Your task to perform on an android device: Search for a custom made wallet on Etsy Image 0: 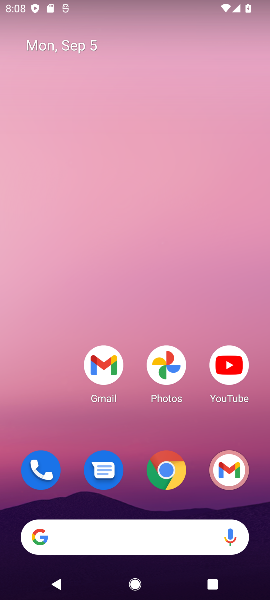
Step 0: click (162, 531)
Your task to perform on an android device: Search for a custom made wallet on Etsy Image 1: 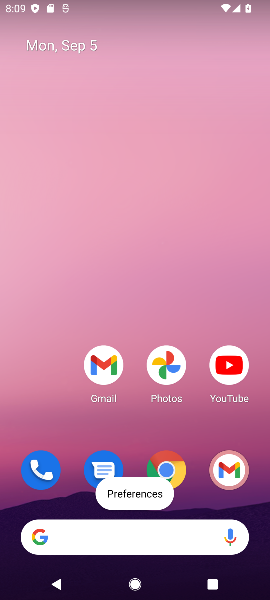
Step 1: click (63, 526)
Your task to perform on an android device: Search for a custom made wallet on Etsy Image 2: 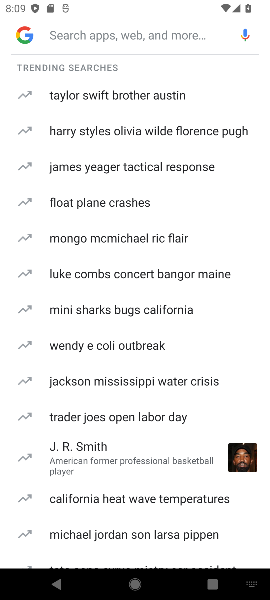
Step 2: type "etsy"
Your task to perform on an android device: Search for a custom made wallet on Etsy Image 3: 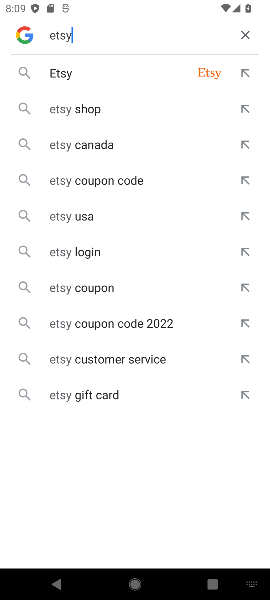
Step 3: click (68, 71)
Your task to perform on an android device: Search for a custom made wallet on Etsy Image 4: 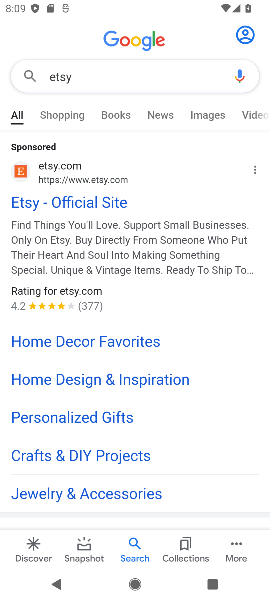
Step 4: click (34, 202)
Your task to perform on an android device: Search for a custom made wallet on Etsy Image 5: 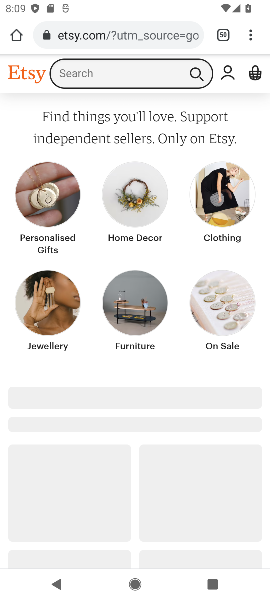
Step 5: click (123, 71)
Your task to perform on an android device: Search for a custom made wallet on Etsy Image 6: 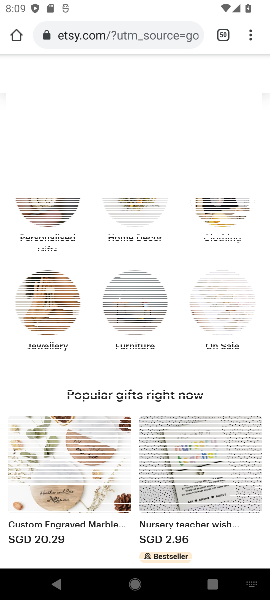
Step 6: type "custom made wallet"
Your task to perform on an android device: Search for a custom made wallet on Etsy Image 7: 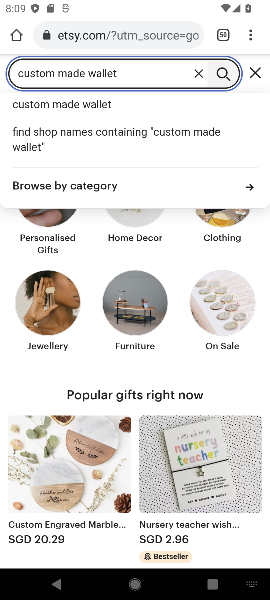
Step 7: click (223, 73)
Your task to perform on an android device: Search for a custom made wallet on Etsy Image 8: 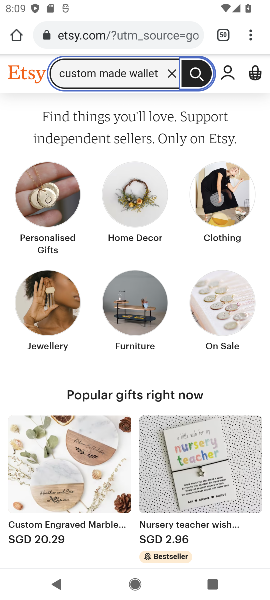
Step 8: click (197, 77)
Your task to perform on an android device: Search for a custom made wallet on Etsy Image 9: 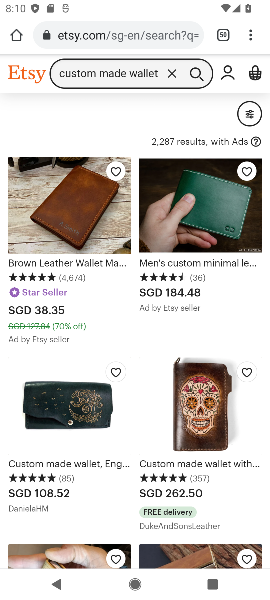
Step 9: task complete